Your task to perform on an android device: Open Yahoo.com Image 0: 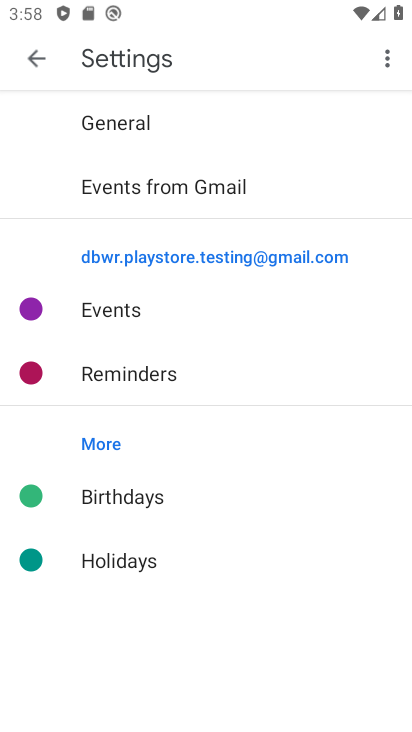
Step 0: press home button
Your task to perform on an android device: Open Yahoo.com Image 1: 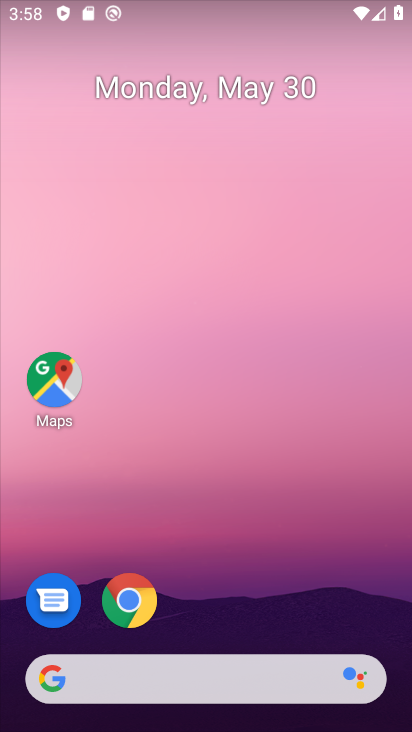
Step 1: click (116, 616)
Your task to perform on an android device: Open Yahoo.com Image 2: 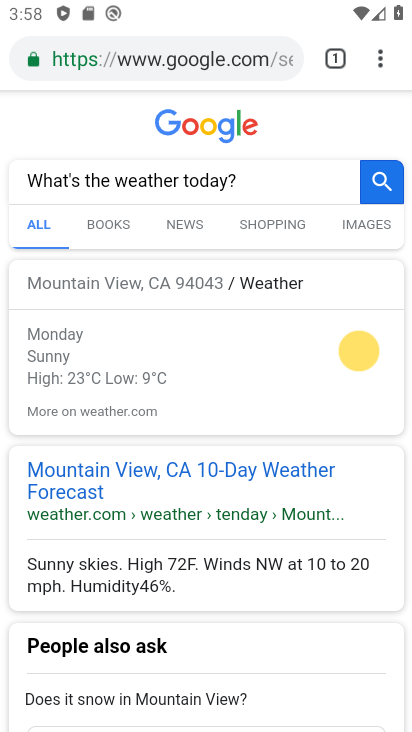
Step 2: click (193, 73)
Your task to perform on an android device: Open Yahoo.com Image 3: 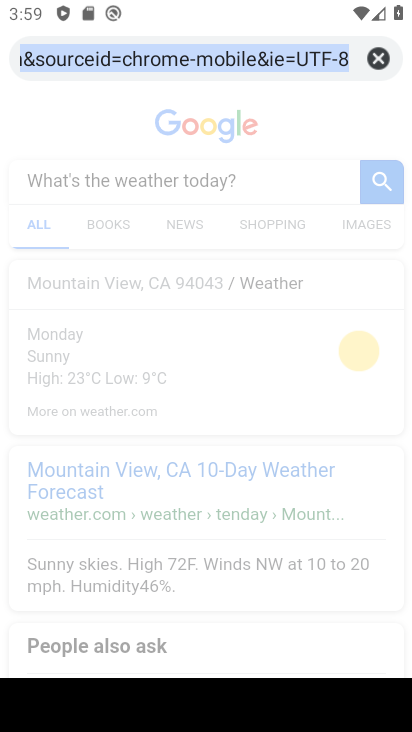
Step 3: type "yahoo.com"
Your task to perform on an android device: Open Yahoo.com Image 4: 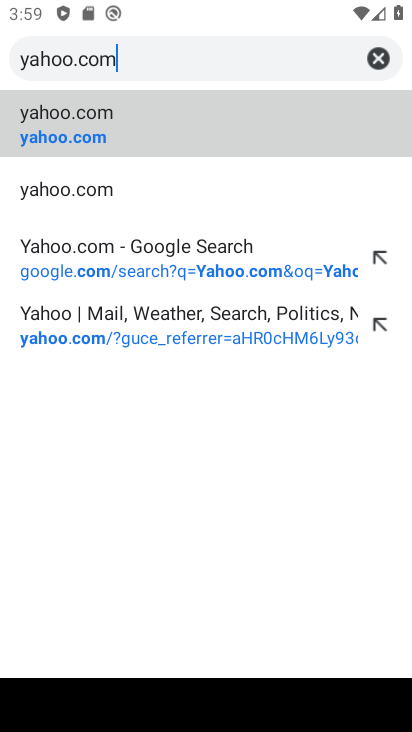
Step 4: click (72, 136)
Your task to perform on an android device: Open Yahoo.com Image 5: 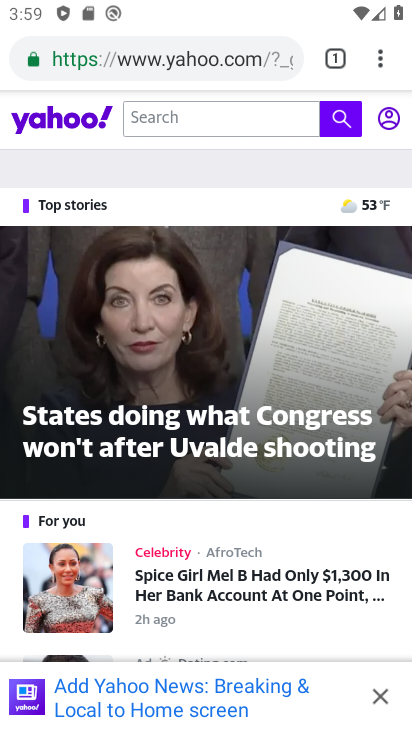
Step 5: task complete